Your task to perform on an android device: turn pop-ups on in chrome Image 0: 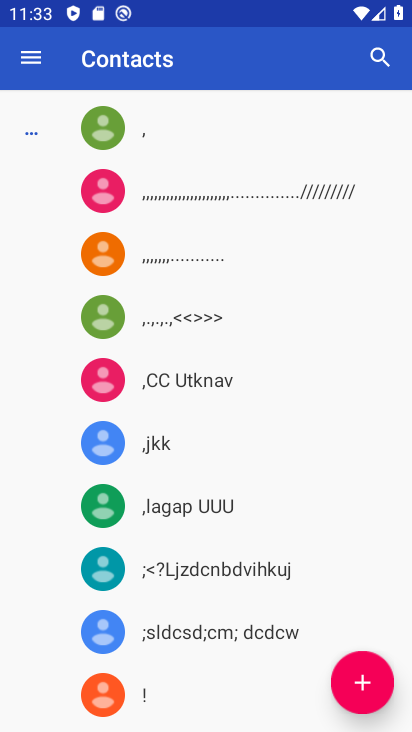
Step 0: press home button
Your task to perform on an android device: turn pop-ups on in chrome Image 1: 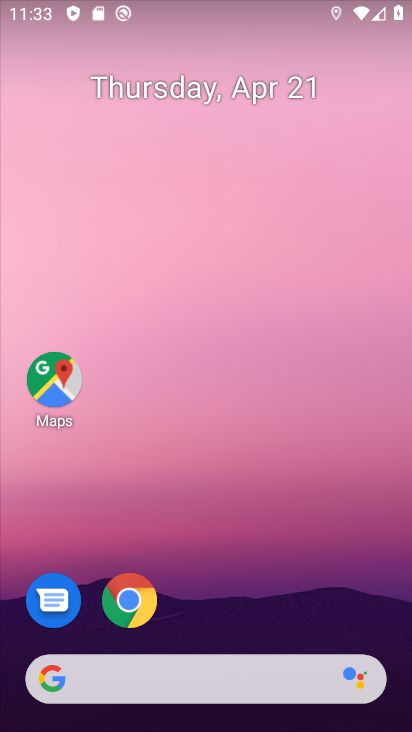
Step 1: click (124, 605)
Your task to perform on an android device: turn pop-ups on in chrome Image 2: 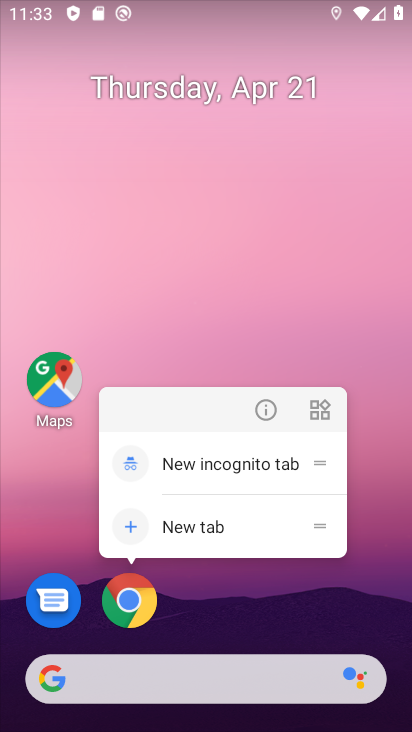
Step 2: click (141, 618)
Your task to perform on an android device: turn pop-ups on in chrome Image 3: 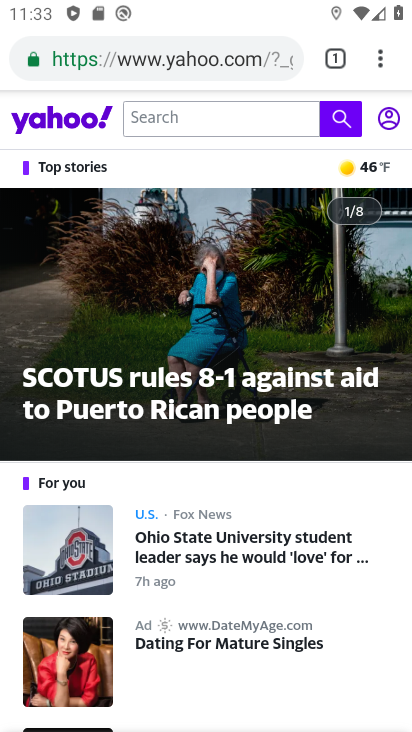
Step 3: click (388, 54)
Your task to perform on an android device: turn pop-ups on in chrome Image 4: 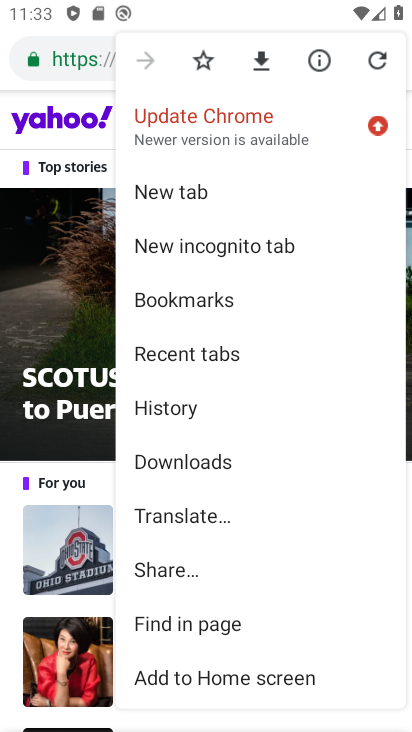
Step 4: drag from (210, 610) to (221, 266)
Your task to perform on an android device: turn pop-ups on in chrome Image 5: 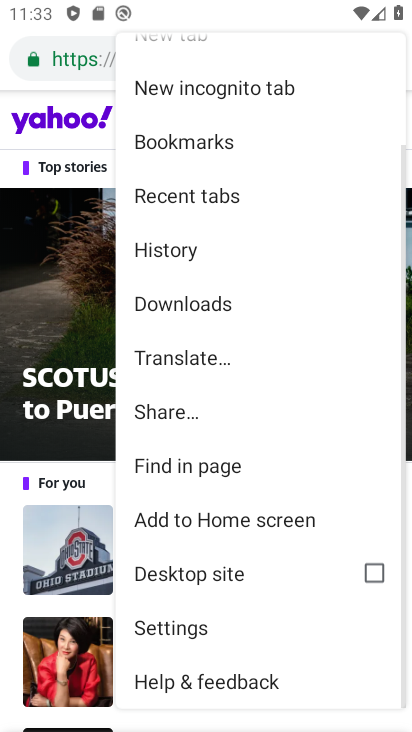
Step 5: click (186, 627)
Your task to perform on an android device: turn pop-ups on in chrome Image 6: 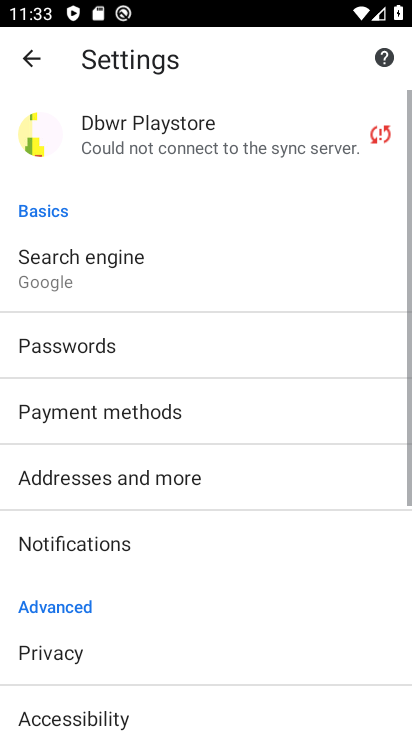
Step 6: drag from (184, 599) to (189, 181)
Your task to perform on an android device: turn pop-ups on in chrome Image 7: 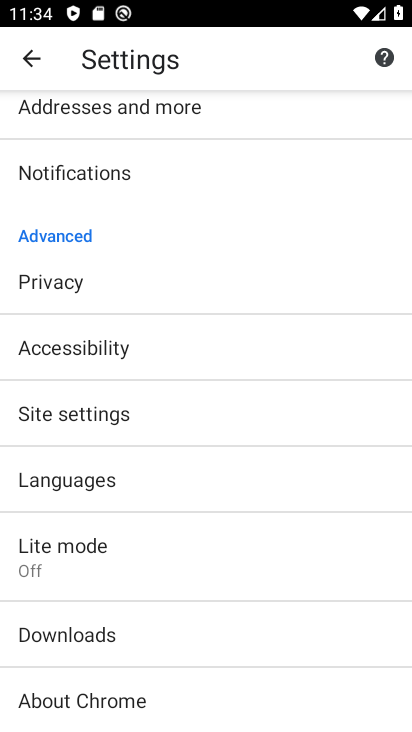
Step 7: click (114, 424)
Your task to perform on an android device: turn pop-ups on in chrome Image 8: 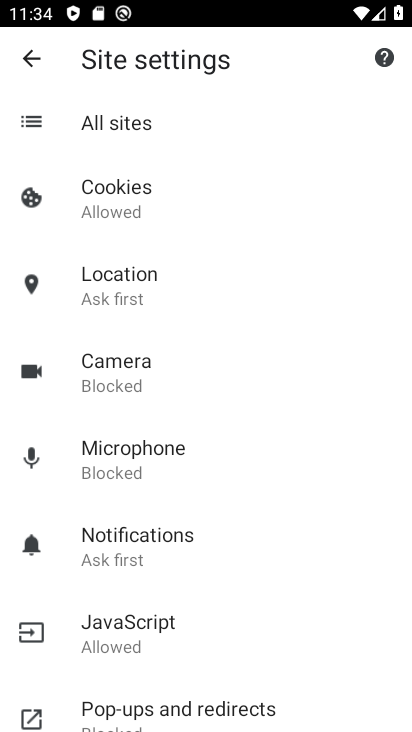
Step 8: click (149, 708)
Your task to perform on an android device: turn pop-ups on in chrome Image 9: 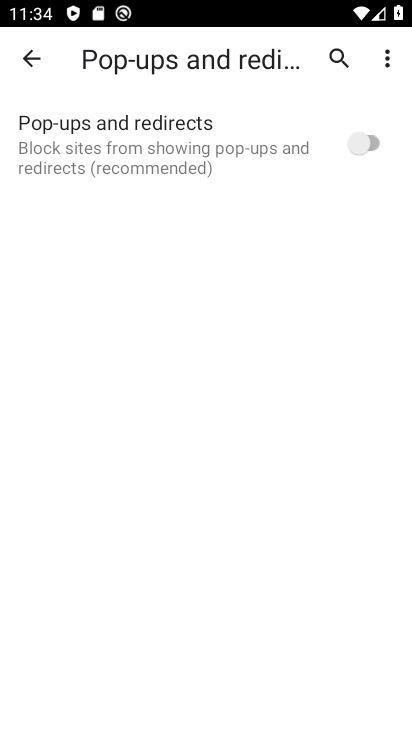
Step 9: click (361, 127)
Your task to perform on an android device: turn pop-ups on in chrome Image 10: 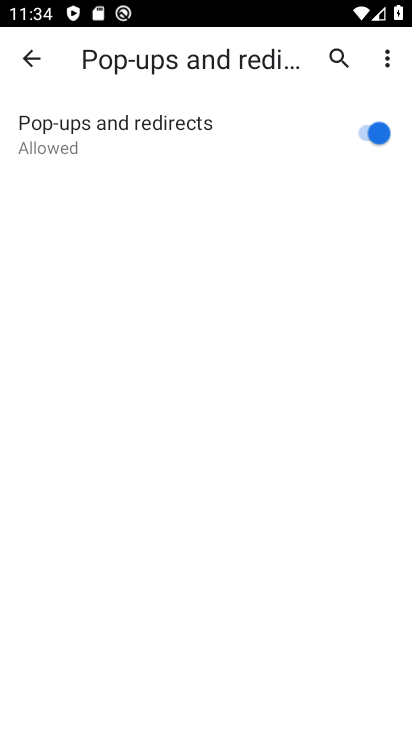
Step 10: task complete